Your task to perform on an android device: Open Android settings Image 0: 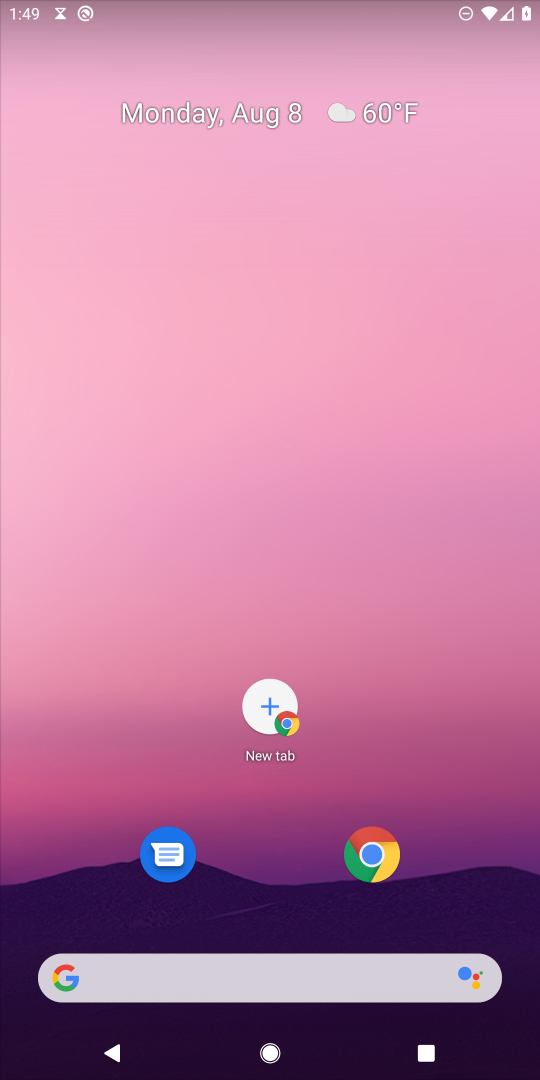
Step 0: press home button
Your task to perform on an android device: Open Android settings Image 1: 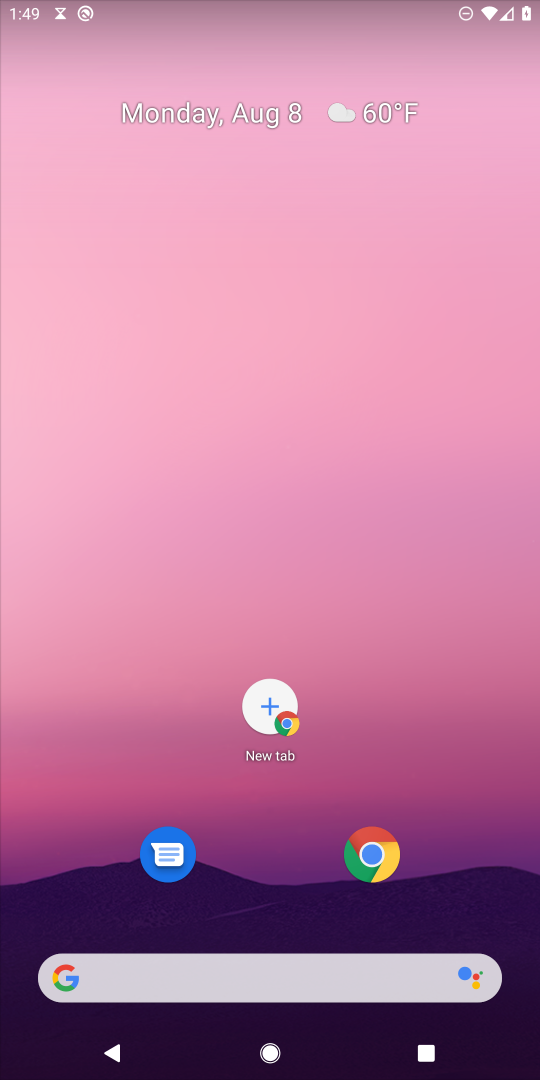
Step 1: click (393, 69)
Your task to perform on an android device: Open Android settings Image 2: 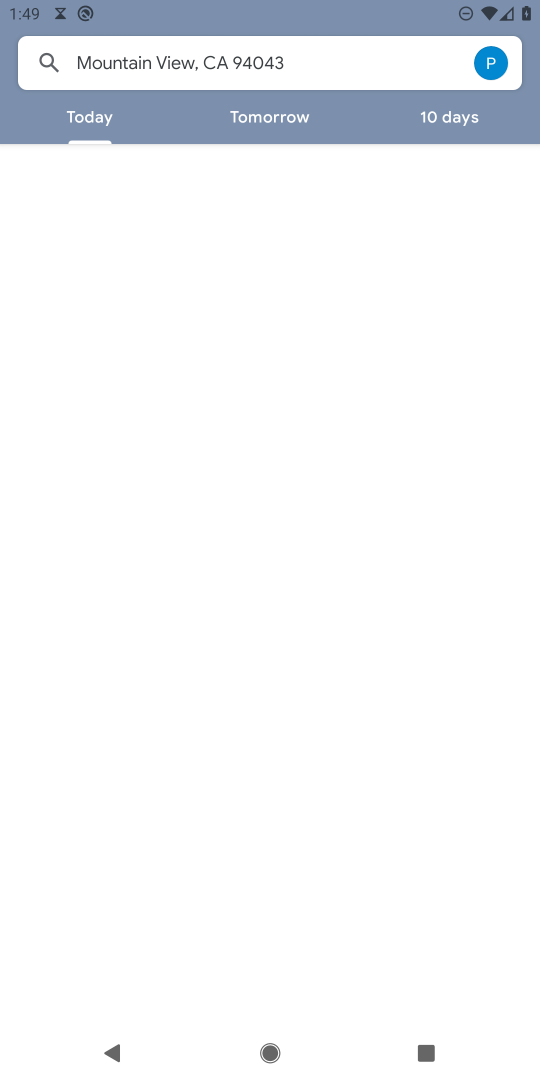
Step 2: press home button
Your task to perform on an android device: Open Android settings Image 3: 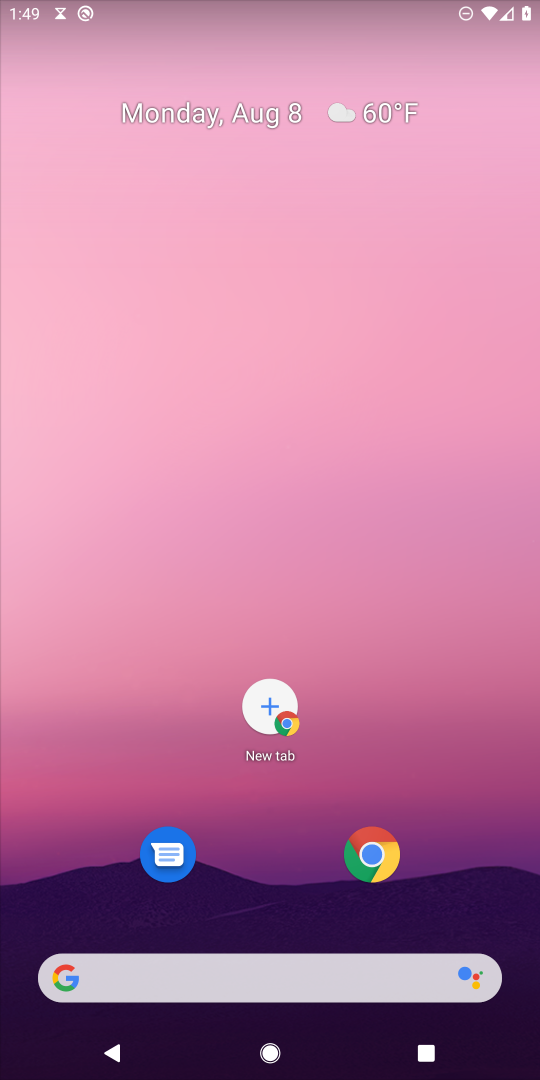
Step 3: drag from (462, 710) to (405, 0)
Your task to perform on an android device: Open Android settings Image 4: 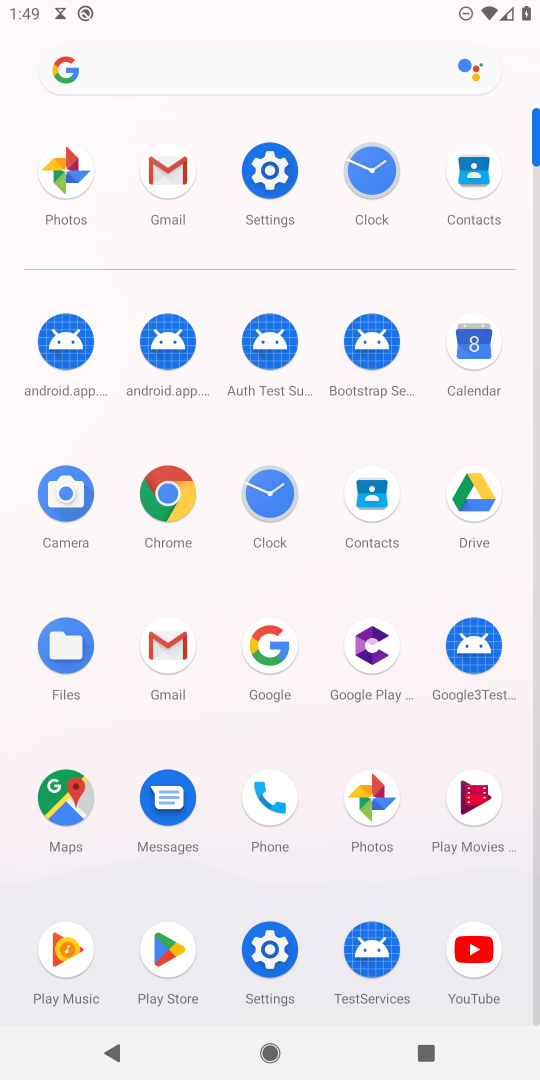
Step 4: click (267, 166)
Your task to perform on an android device: Open Android settings Image 5: 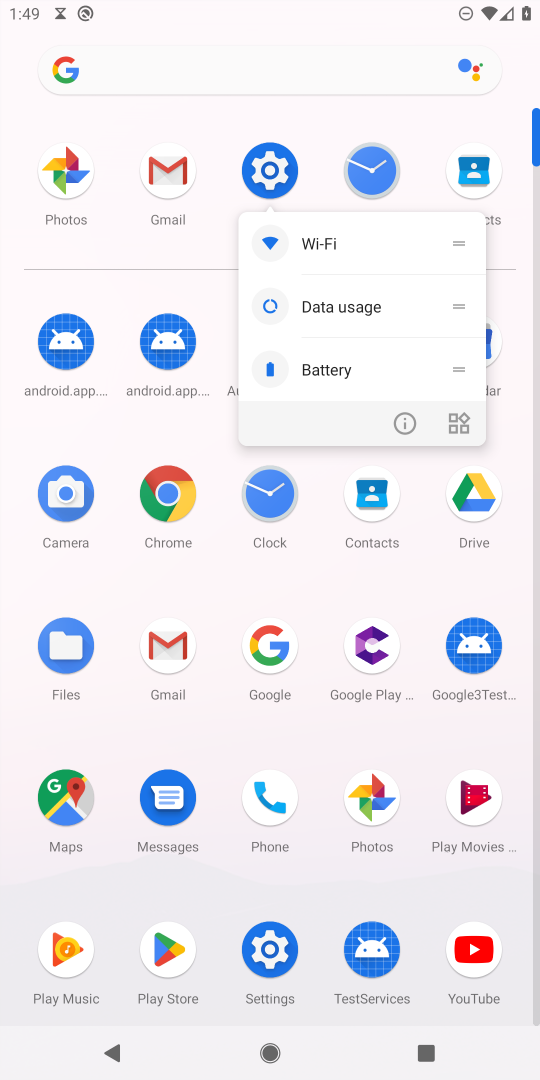
Step 5: click (274, 161)
Your task to perform on an android device: Open Android settings Image 6: 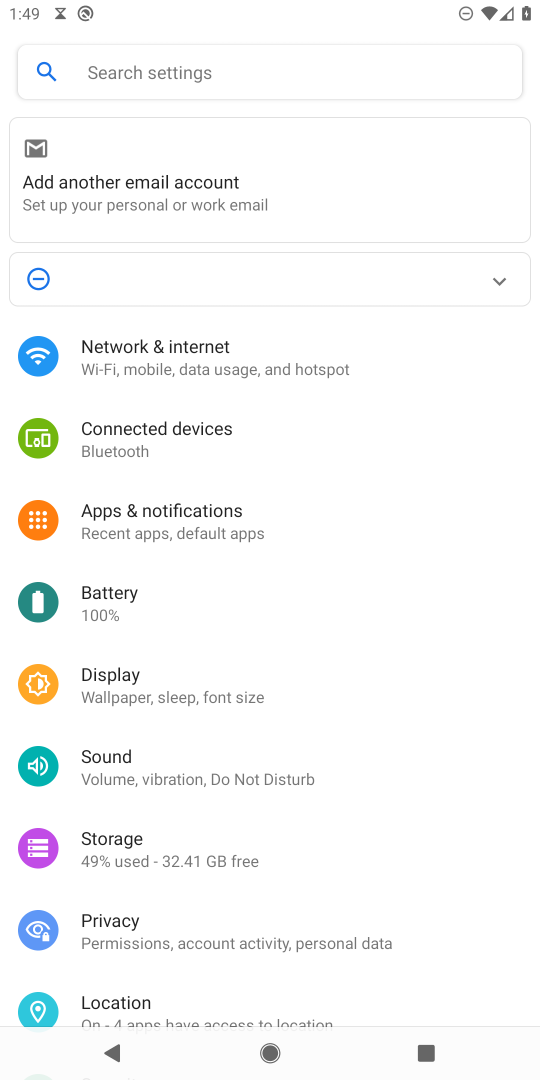
Step 6: task complete